Your task to perform on an android device: Open calendar and show me the fourth week of next month Image 0: 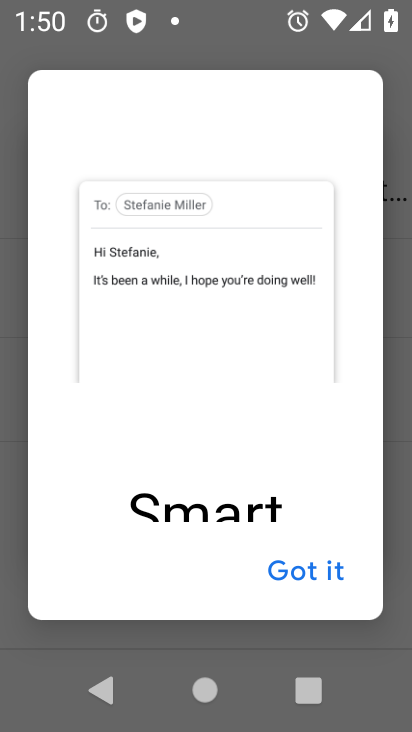
Step 0: press home button
Your task to perform on an android device: Open calendar and show me the fourth week of next month Image 1: 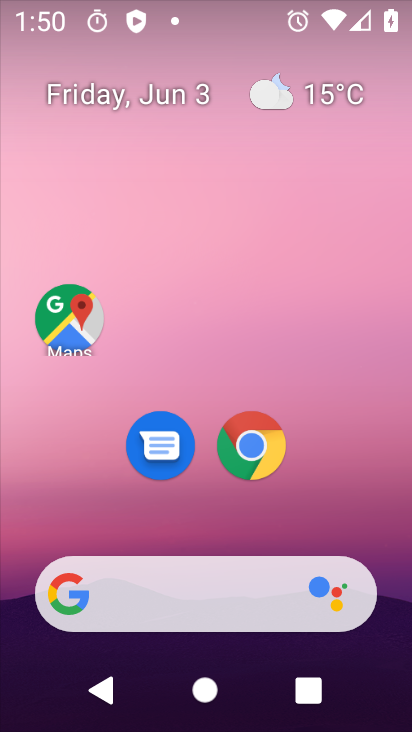
Step 1: click (133, 91)
Your task to perform on an android device: Open calendar and show me the fourth week of next month Image 2: 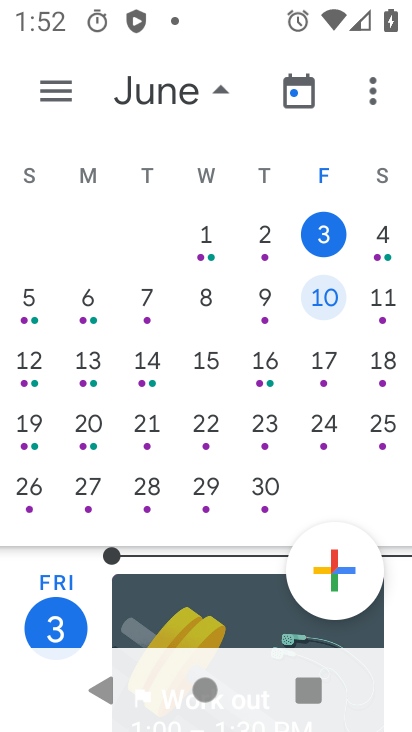
Step 2: drag from (364, 468) to (30, 451)
Your task to perform on an android device: Open calendar and show me the fourth week of next month Image 3: 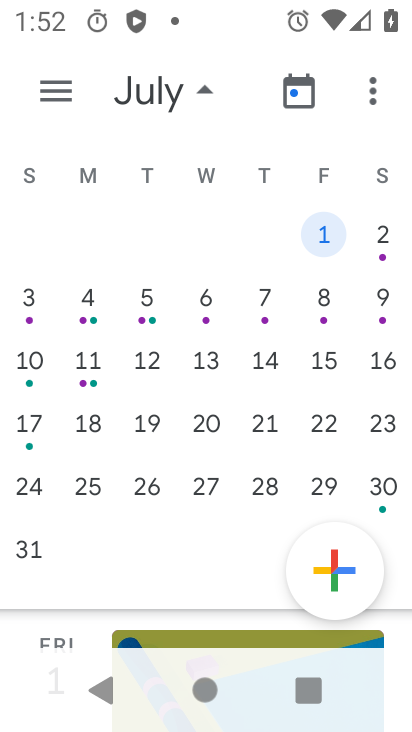
Step 3: click (314, 425)
Your task to perform on an android device: Open calendar and show me the fourth week of next month Image 4: 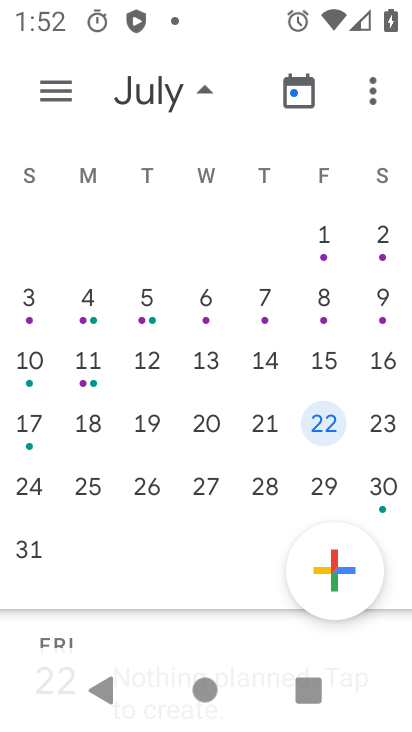
Step 4: task complete